Your task to perform on an android device: open device folders in google photos Image 0: 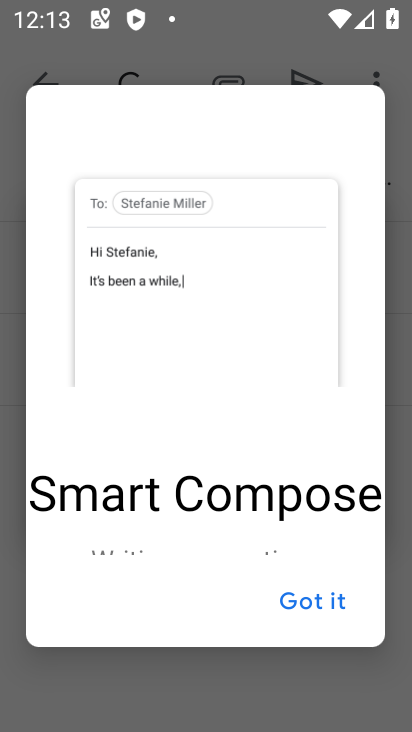
Step 0: press home button
Your task to perform on an android device: open device folders in google photos Image 1: 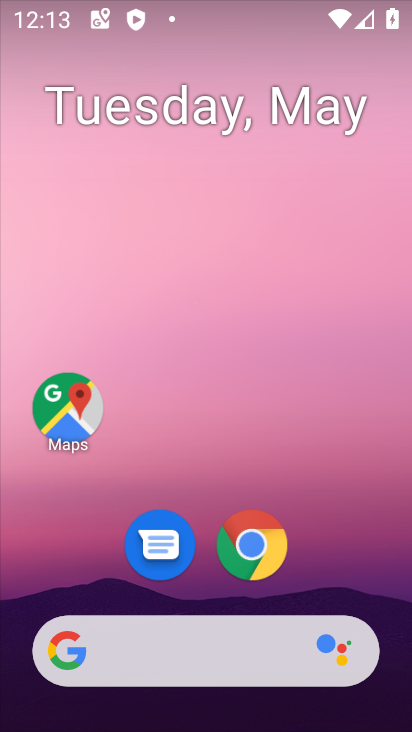
Step 1: drag from (210, 596) to (285, 83)
Your task to perform on an android device: open device folders in google photos Image 2: 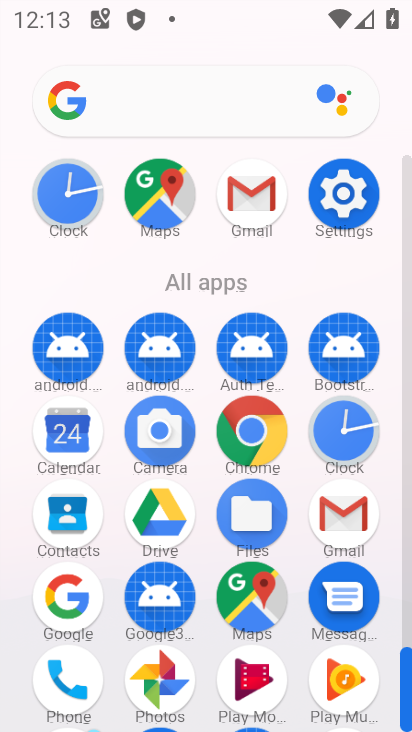
Step 2: click (164, 680)
Your task to perform on an android device: open device folders in google photos Image 3: 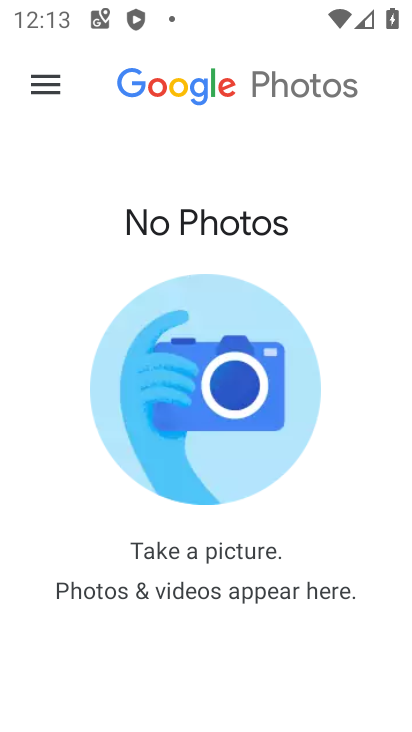
Step 3: click (36, 96)
Your task to perform on an android device: open device folders in google photos Image 4: 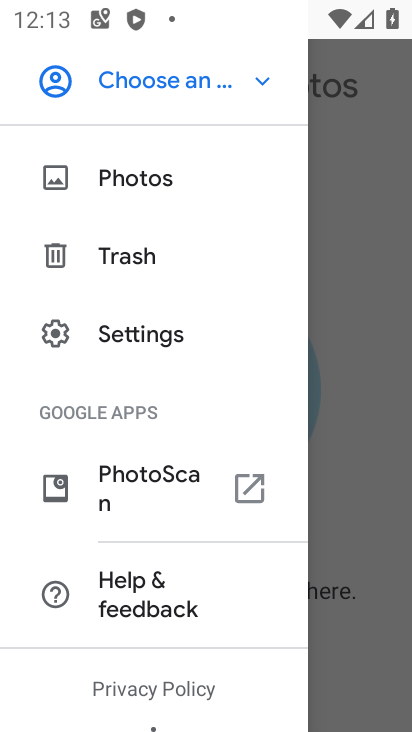
Step 4: drag from (152, 188) to (201, 598)
Your task to perform on an android device: open device folders in google photos Image 5: 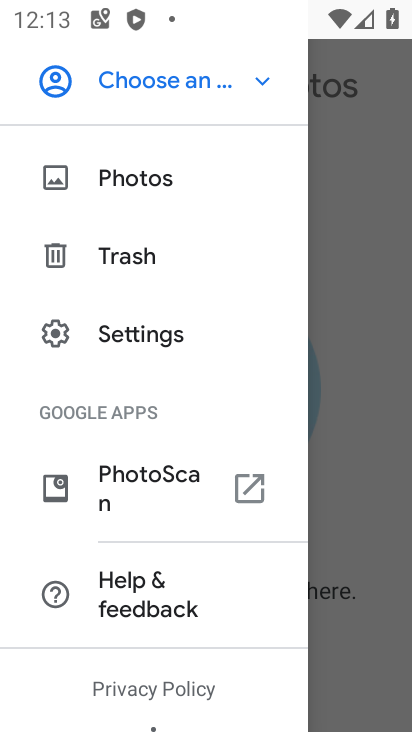
Step 5: click (213, 31)
Your task to perform on an android device: open device folders in google photos Image 6: 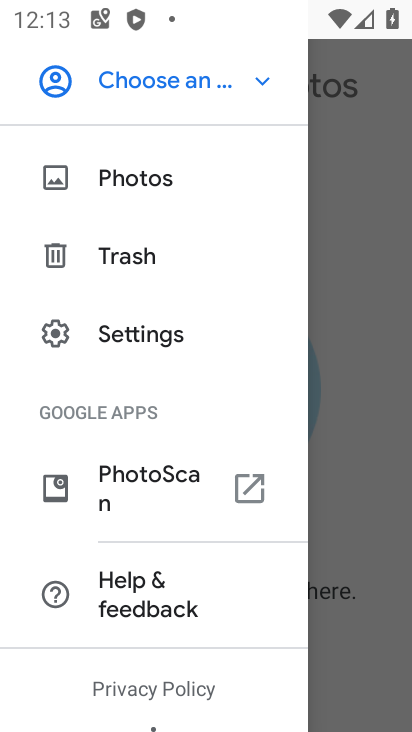
Step 6: click (134, 94)
Your task to perform on an android device: open device folders in google photos Image 7: 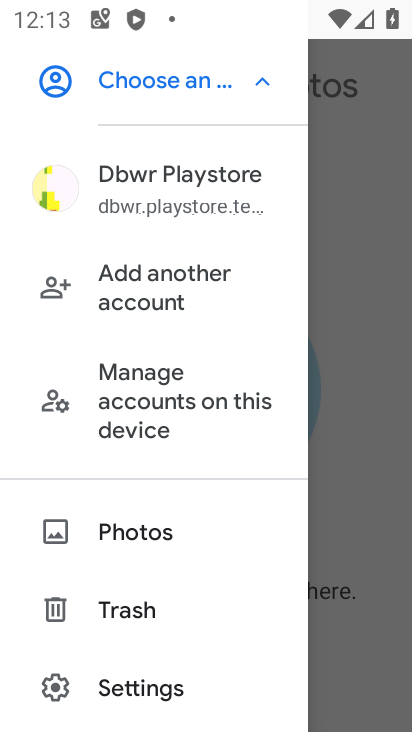
Step 7: click (106, 187)
Your task to perform on an android device: open device folders in google photos Image 8: 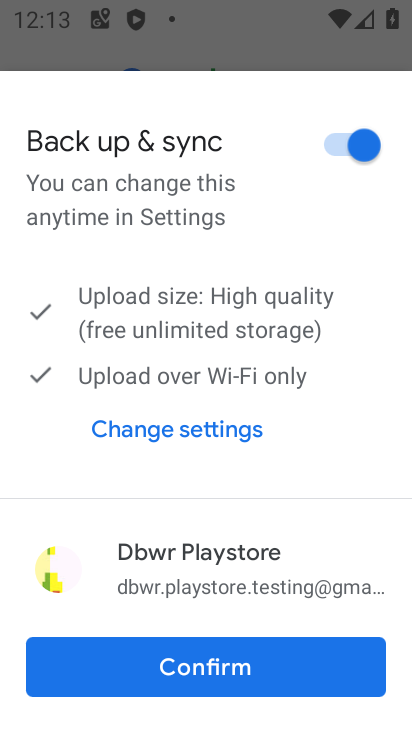
Step 8: click (156, 696)
Your task to perform on an android device: open device folders in google photos Image 9: 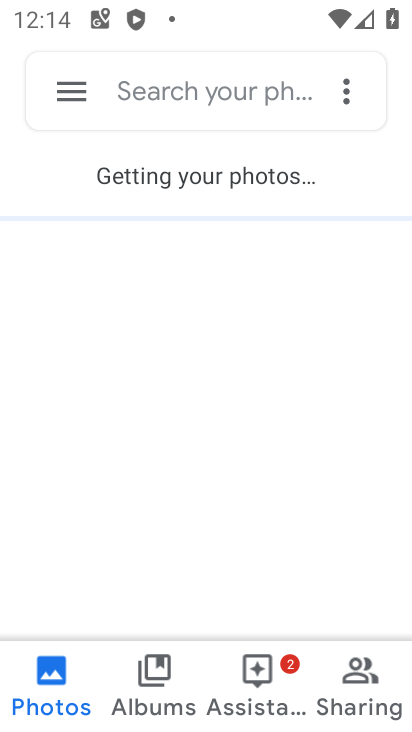
Step 9: click (69, 77)
Your task to perform on an android device: open device folders in google photos Image 10: 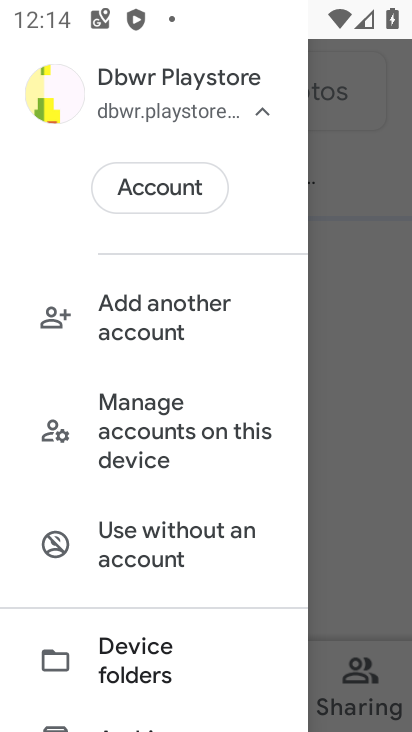
Step 10: click (138, 646)
Your task to perform on an android device: open device folders in google photos Image 11: 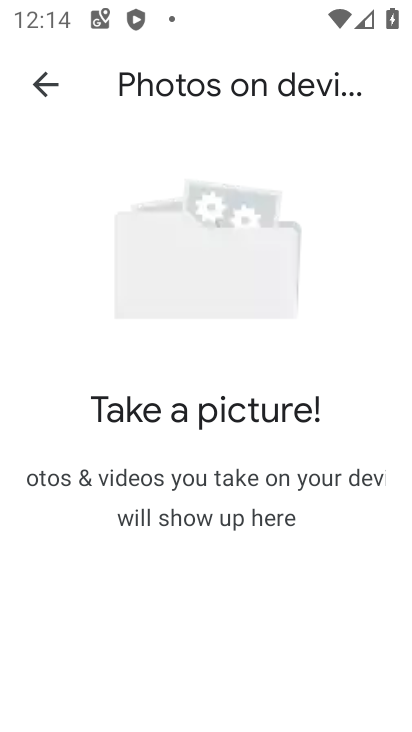
Step 11: task complete